Your task to perform on an android device: turn on the 12-hour format for clock Image 0: 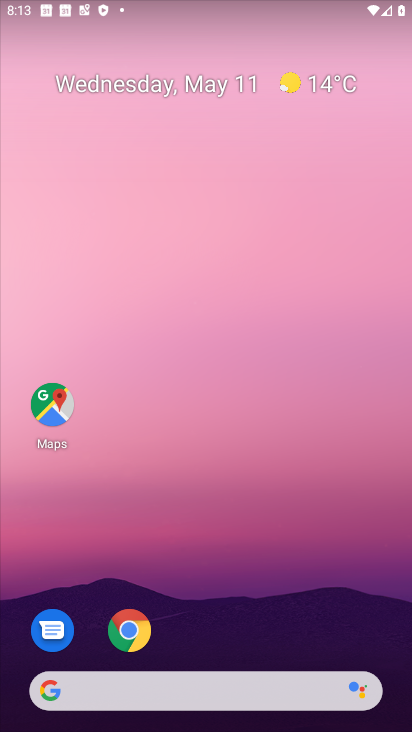
Step 0: drag from (230, 665) to (258, 385)
Your task to perform on an android device: turn on the 12-hour format for clock Image 1: 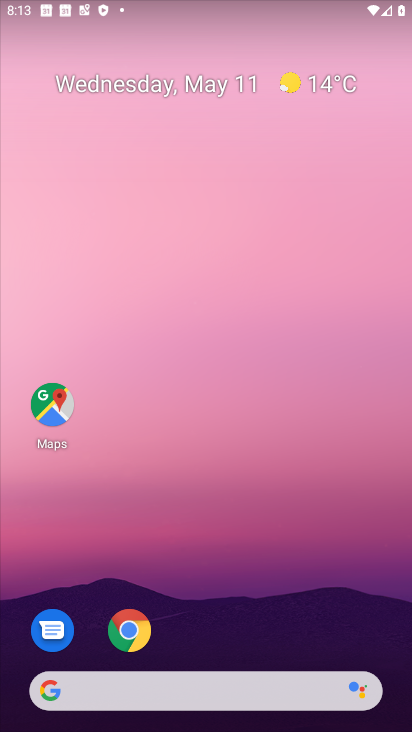
Step 1: click (217, 655)
Your task to perform on an android device: turn on the 12-hour format for clock Image 2: 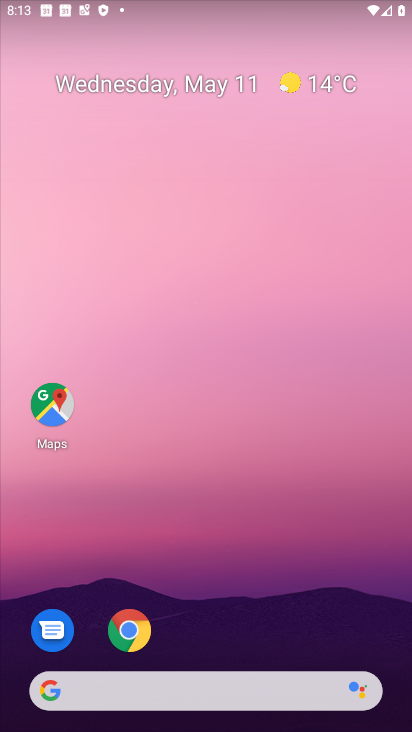
Step 2: drag from (262, 660) to (209, 351)
Your task to perform on an android device: turn on the 12-hour format for clock Image 3: 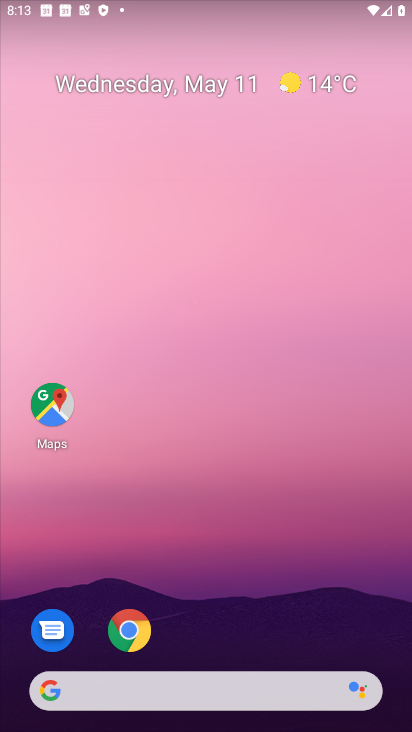
Step 3: drag from (226, 651) to (170, 86)
Your task to perform on an android device: turn on the 12-hour format for clock Image 4: 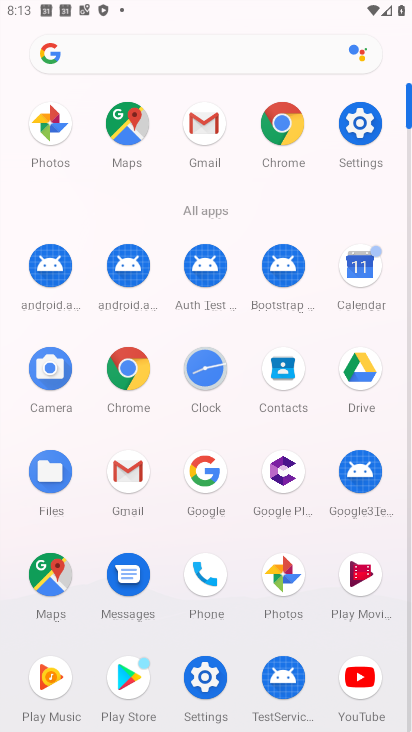
Step 4: click (191, 358)
Your task to perform on an android device: turn on the 12-hour format for clock Image 5: 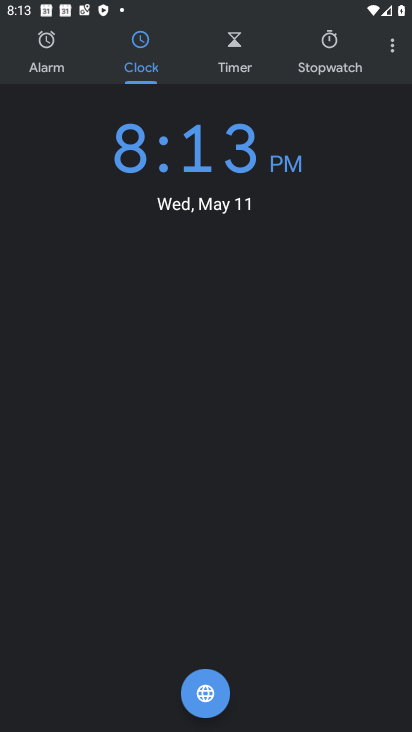
Step 5: click (388, 46)
Your task to perform on an android device: turn on the 12-hour format for clock Image 6: 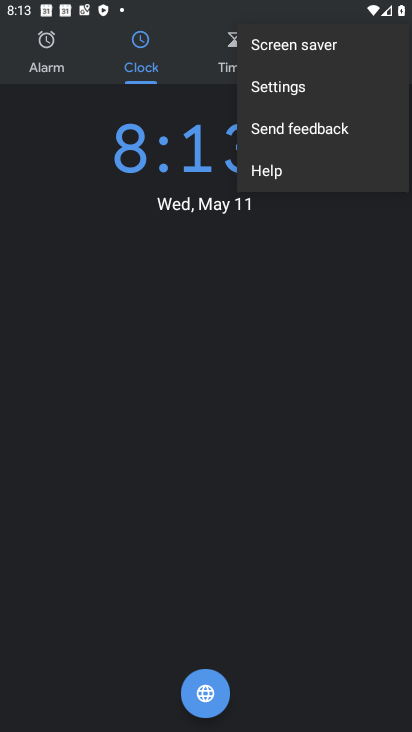
Step 6: click (277, 102)
Your task to perform on an android device: turn on the 12-hour format for clock Image 7: 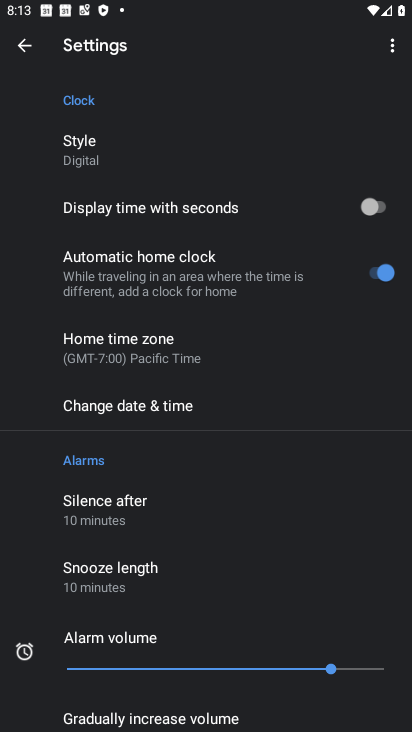
Step 7: click (119, 403)
Your task to perform on an android device: turn on the 12-hour format for clock Image 8: 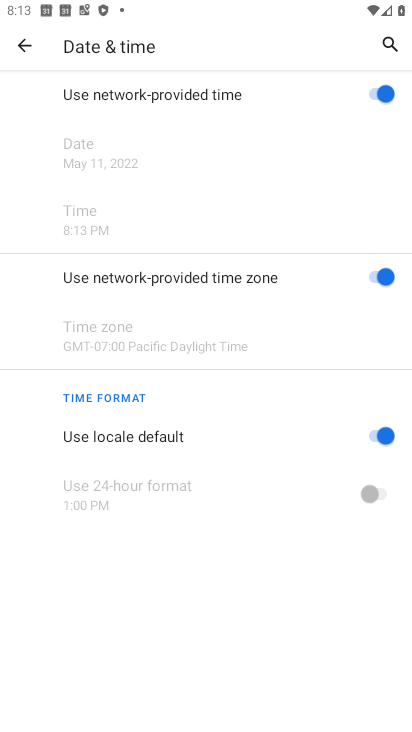
Step 8: task complete